Your task to perform on an android device: Is it going to rain this weekend? Image 0: 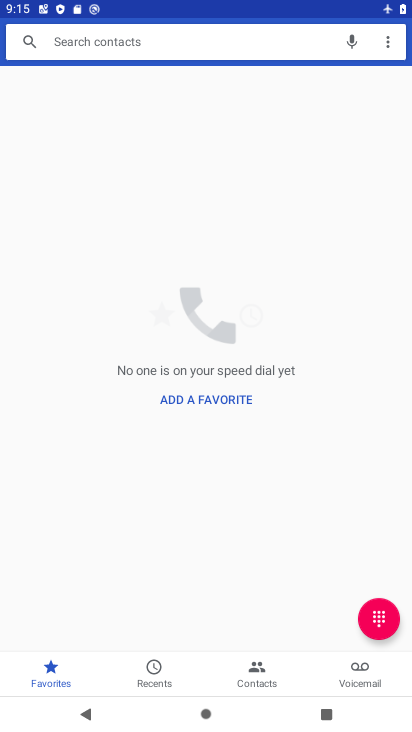
Step 0: press home button
Your task to perform on an android device: Is it going to rain this weekend? Image 1: 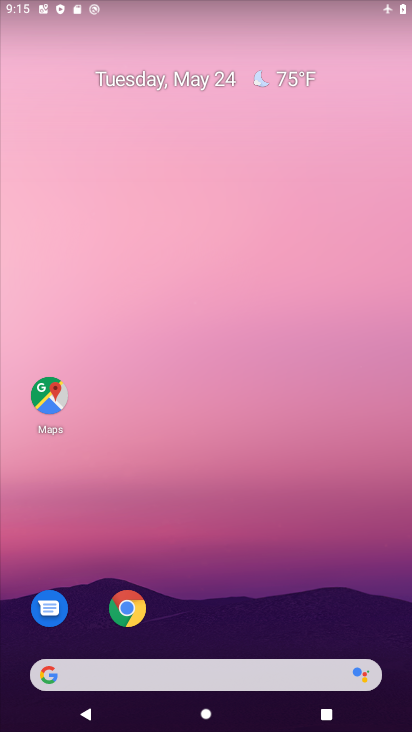
Step 1: click (301, 75)
Your task to perform on an android device: Is it going to rain this weekend? Image 2: 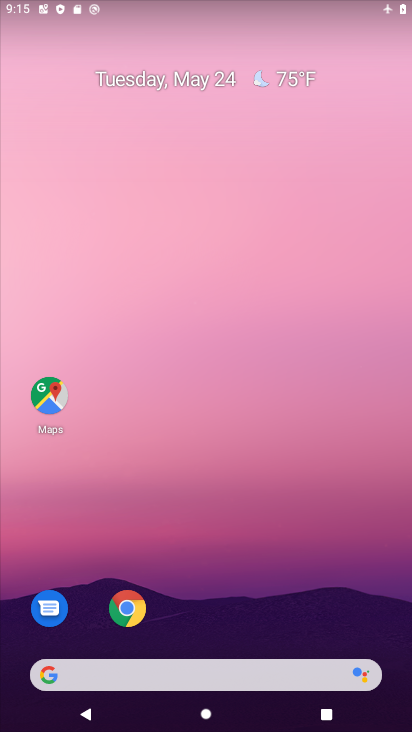
Step 2: click (288, 74)
Your task to perform on an android device: Is it going to rain this weekend? Image 3: 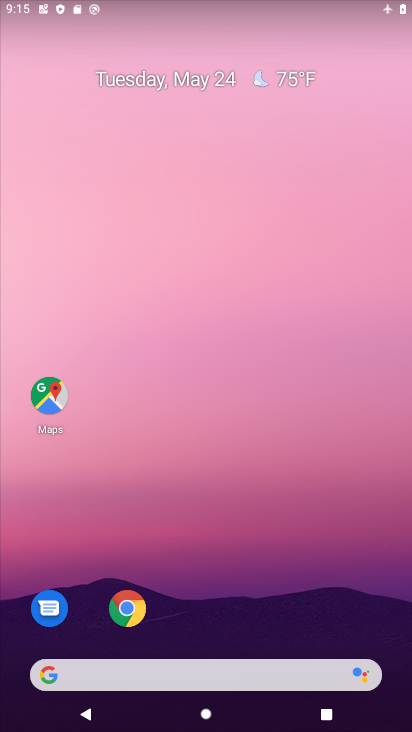
Step 3: drag from (250, 550) to (146, 8)
Your task to perform on an android device: Is it going to rain this weekend? Image 4: 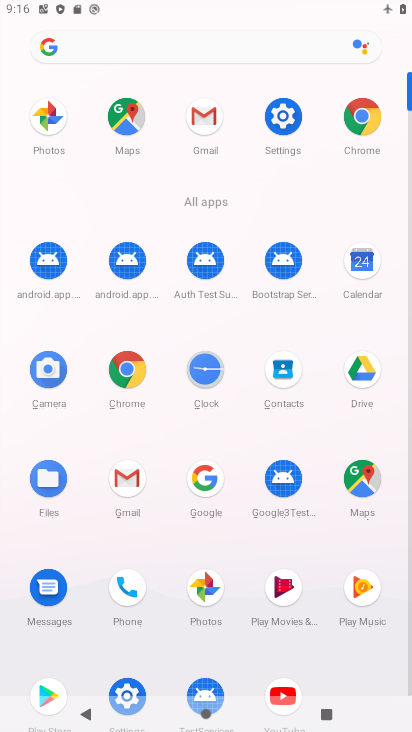
Step 4: click (202, 488)
Your task to perform on an android device: Is it going to rain this weekend? Image 5: 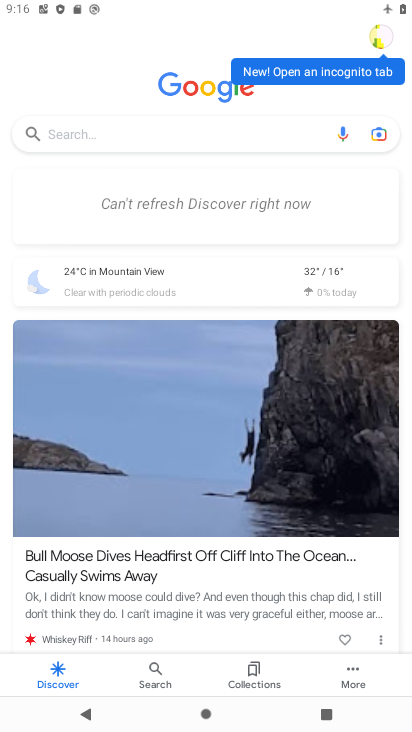
Step 5: click (324, 277)
Your task to perform on an android device: Is it going to rain this weekend? Image 6: 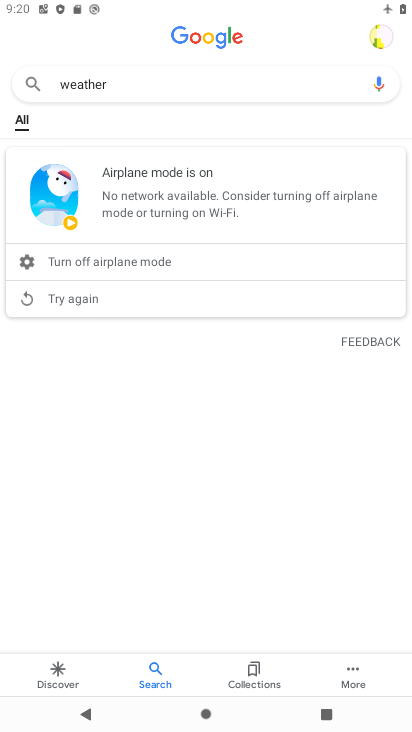
Step 6: task complete